Your task to perform on an android device: Go to display settings Image 0: 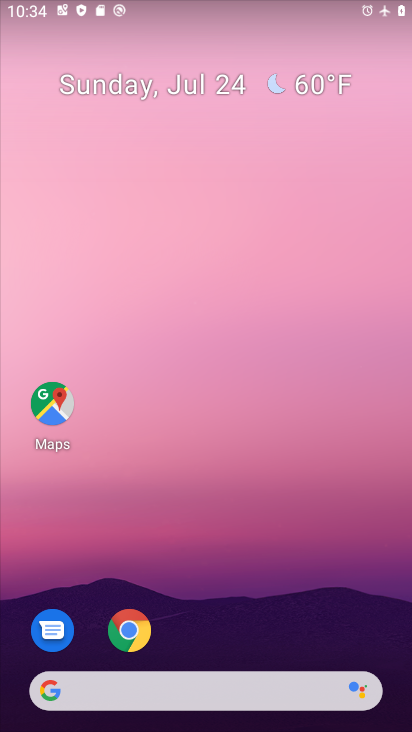
Step 0: drag from (210, 627) to (213, 13)
Your task to perform on an android device: Go to display settings Image 1: 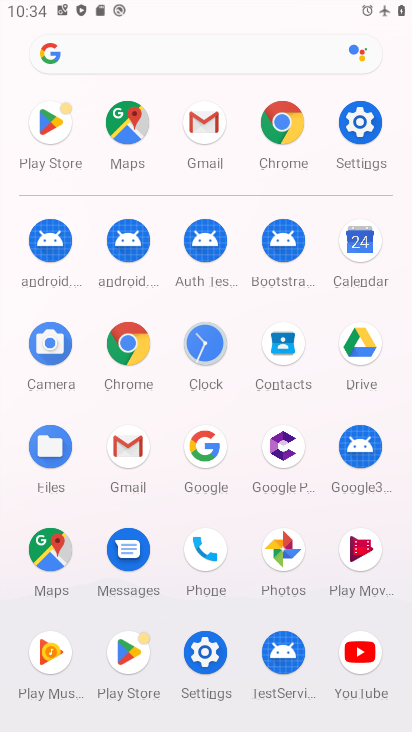
Step 1: click (201, 666)
Your task to perform on an android device: Go to display settings Image 2: 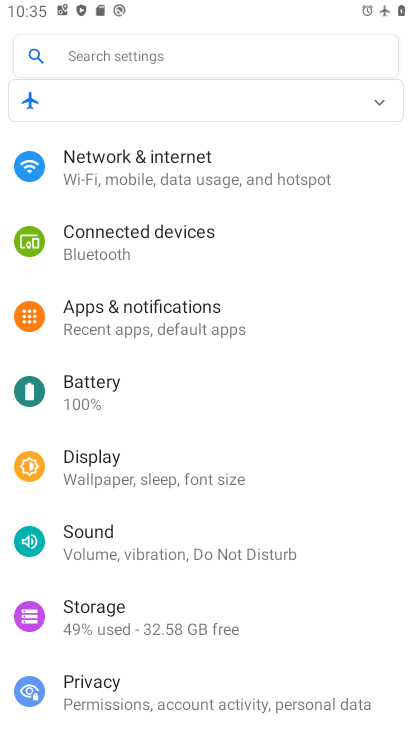
Step 2: click (143, 459)
Your task to perform on an android device: Go to display settings Image 3: 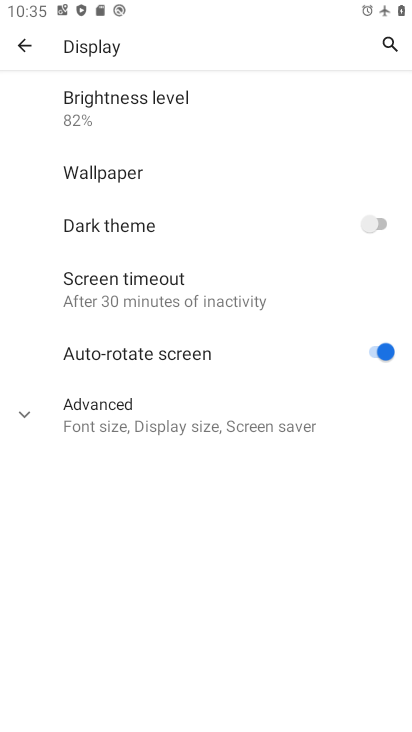
Step 3: task complete